Your task to perform on an android device: Open Chrome and go to settings Image 0: 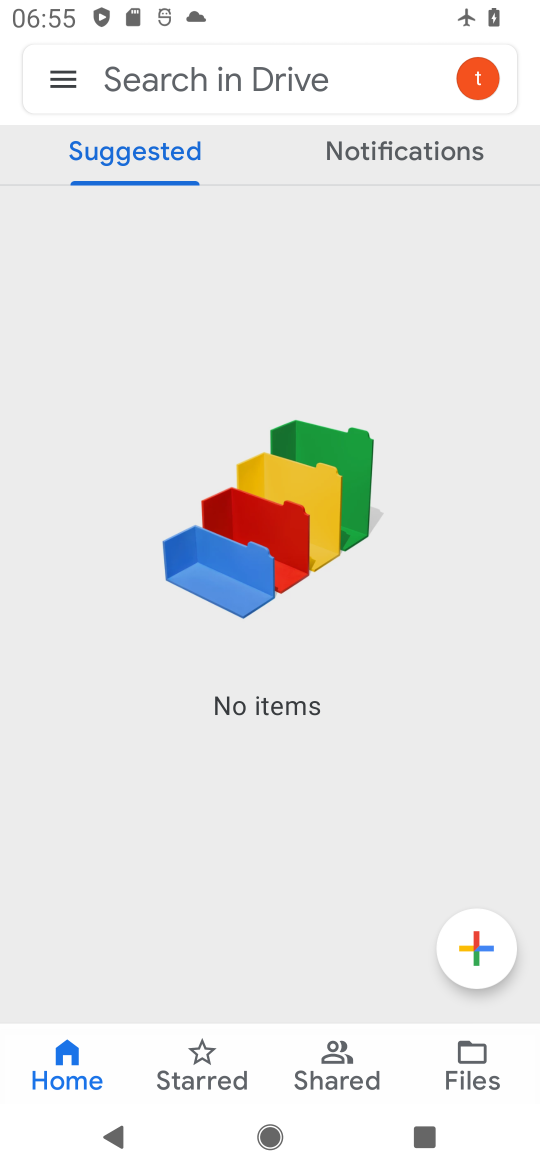
Step 0: press home button
Your task to perform on an android device: Open Chrome and go to settings Image 1: 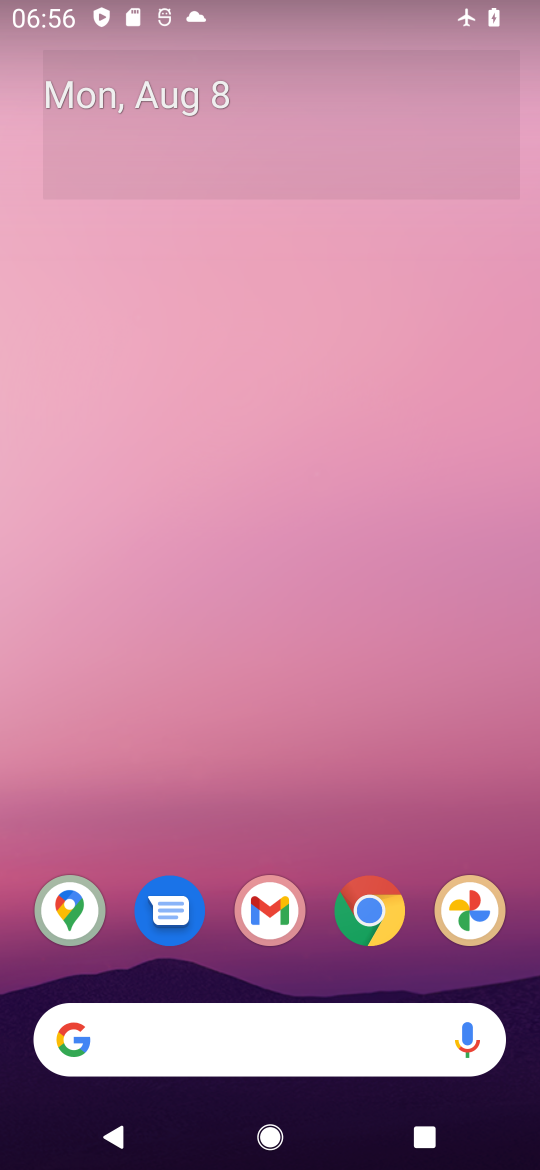
Step 1: click (369, 911)
Your task to perform on an android device: Open Chrome and go to settings Image 2: 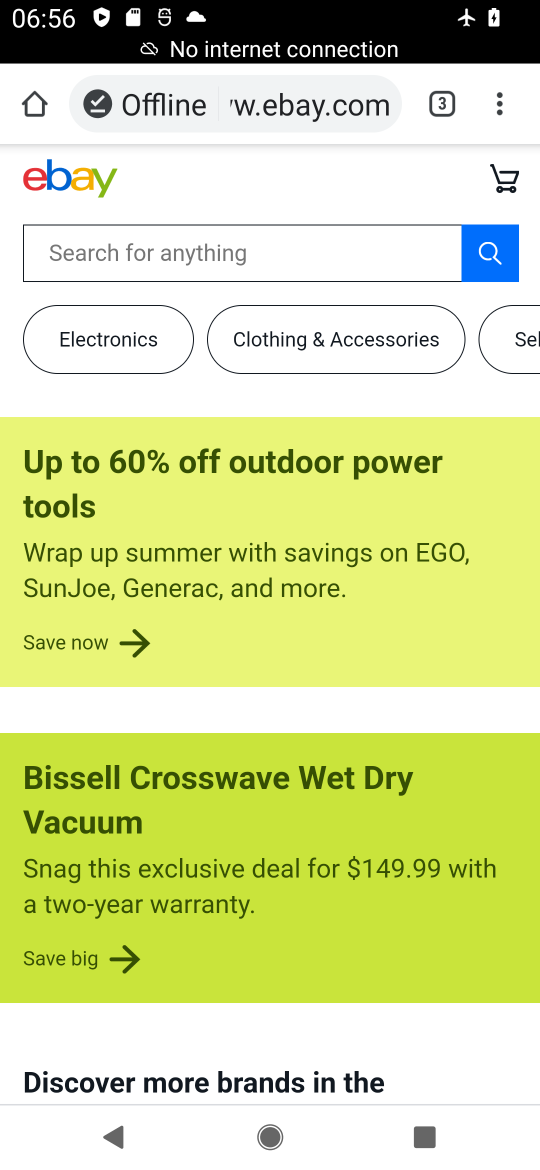
Step 2: click (498, 109)
Your task to perform on an android device: Open Chrome and go to settings Image 3: 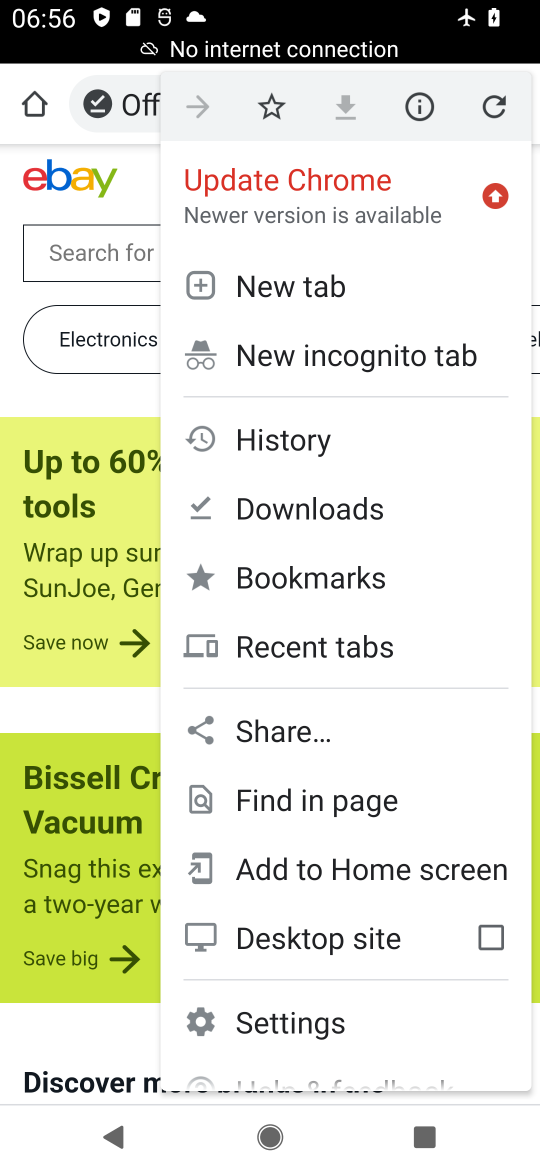
Step 3: drag from (305, 775) to (344, 647)
Your task to perform on an android device: Open Chrome and go to settings Image 4: 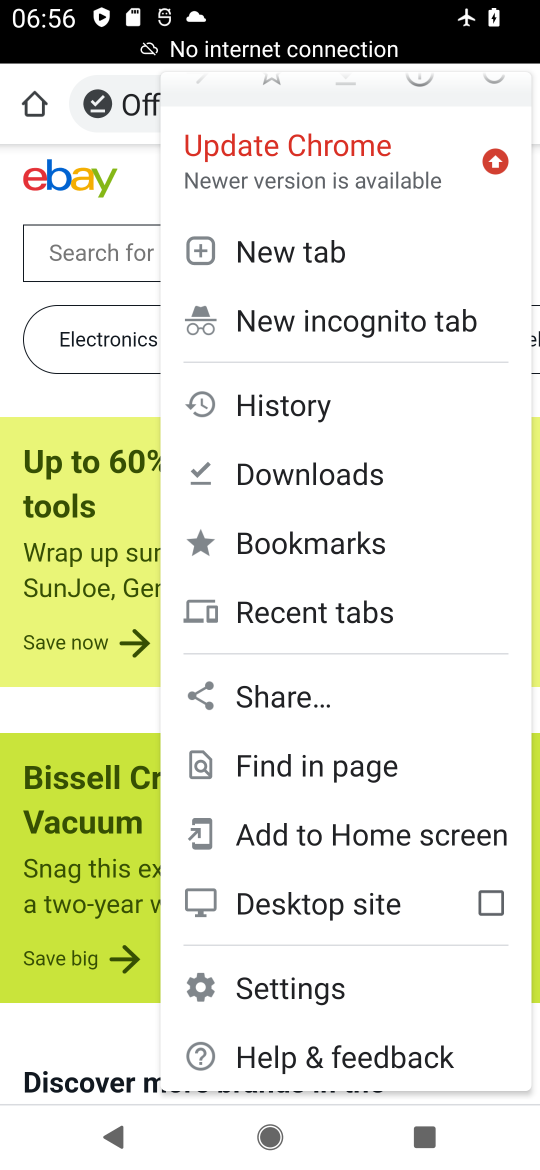
Step 4: click (291, 982)
Your task to perform on an android device: Open Chrome and go to settings Image 5: 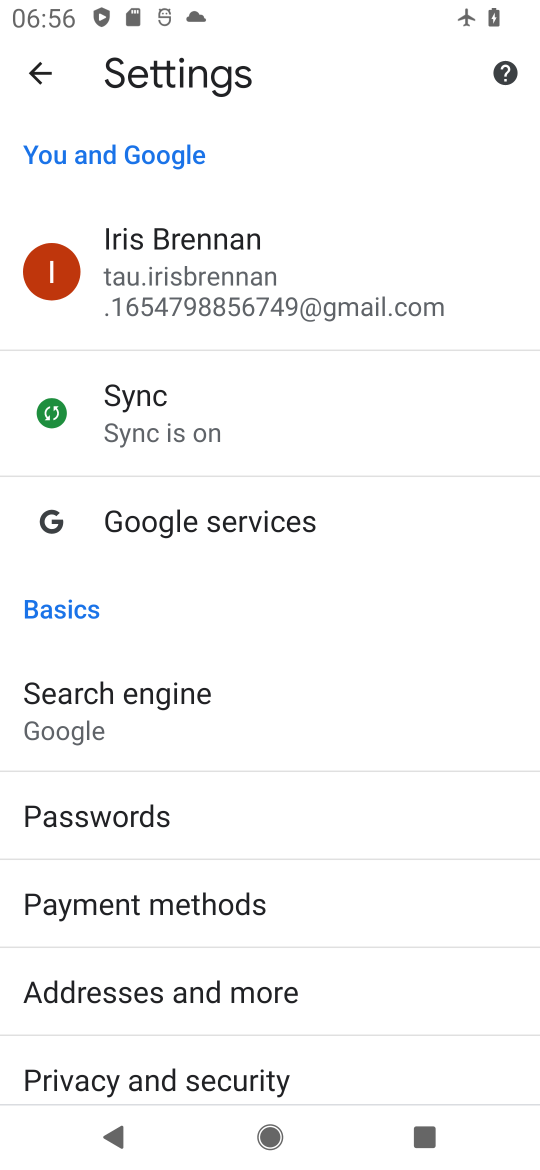
Step 5: task complete